Your task to perform on an android device: Go to sound settings Image 0: 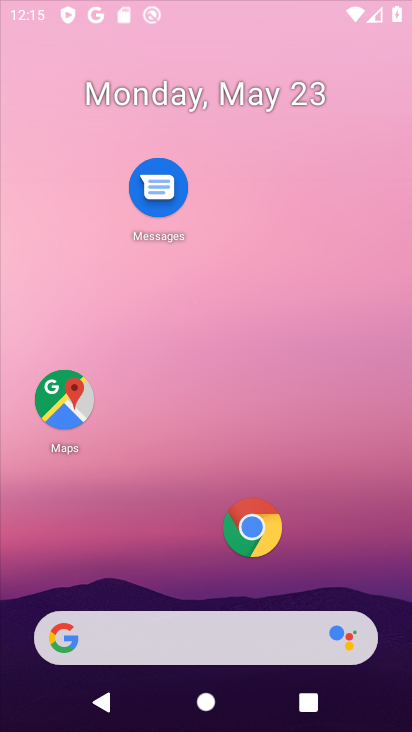
Step 0: drag from (251, 695) to (118, 34)
Your task to perform on an android device: Go to sound settings Image 1: 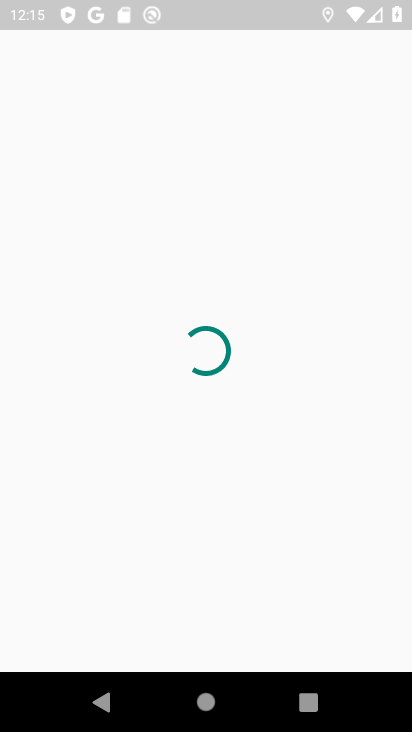
Step 1: press back button
Your task to perform on an android device: Go to sound settings Image 2: 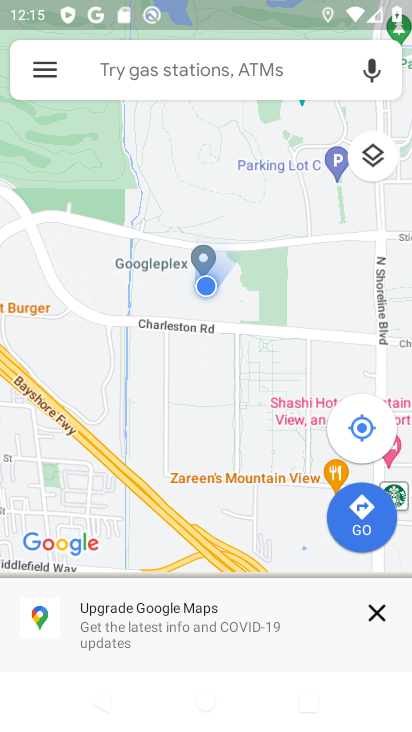
Step 2: press home button
Your task to perform on an android device: Go to sound settings Image 3: 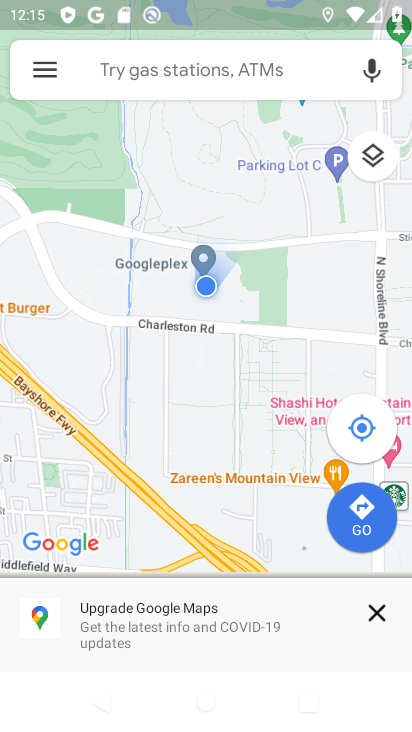
Step 3: press home button
Your task to perform on an android device: Go to sound settings Image 4: 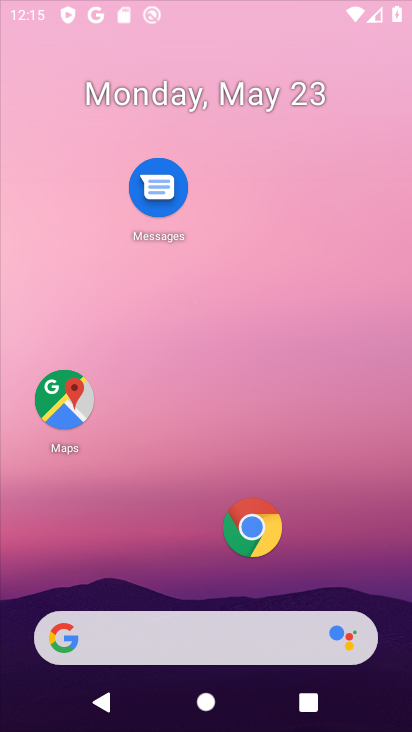
Step 4: press home button
Your task to perform on an android device: Go to sound settings Image 5: 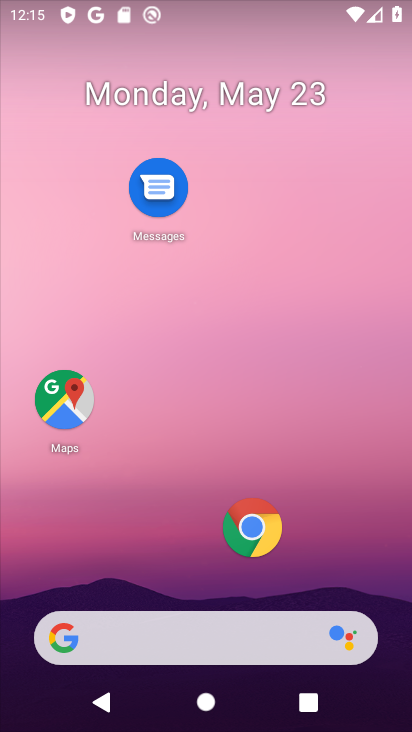
Step 5: drag from (274, 707) to (53, 0)
Your task to perform on an android device: Go to sound settings Image 6: 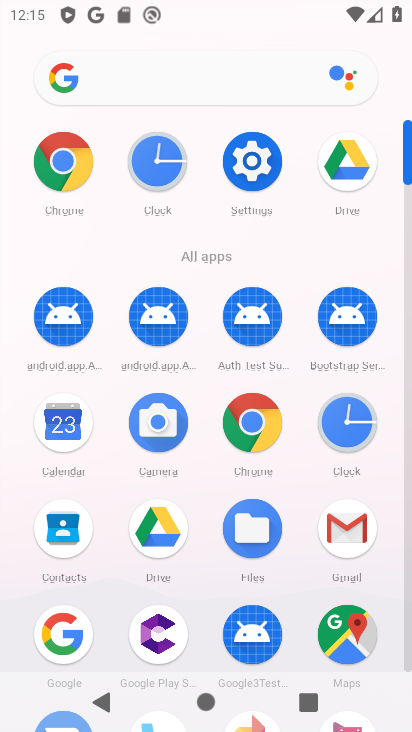
Step 6: click (247, 186)
Your task to perform on an android device: Go to sound settings Image 7: 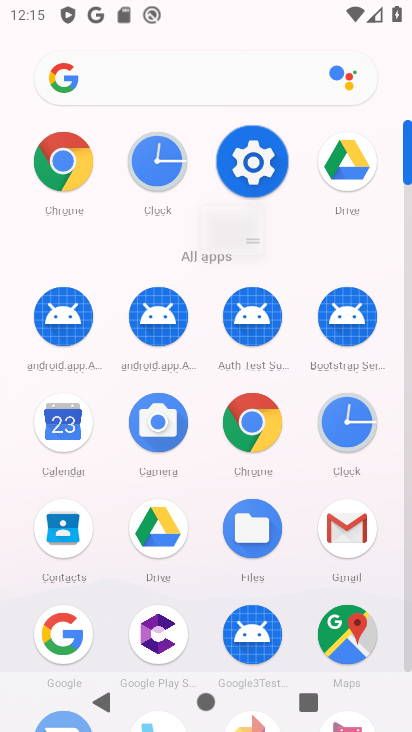
Step 7: click (247, 186)
Your task to perform on an android device: Go to sound settings Image 8: 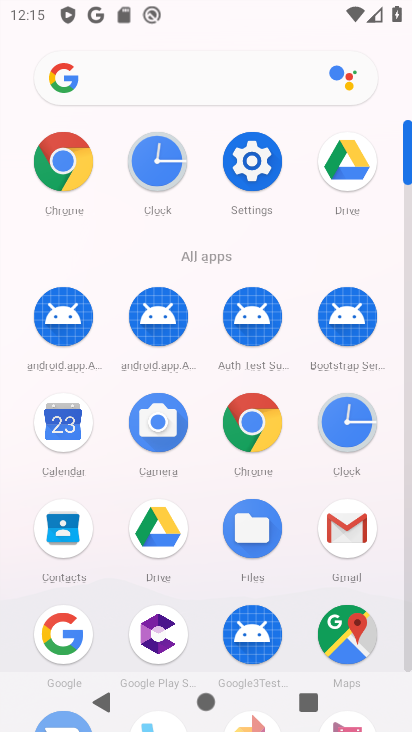
Step 8: click (247, 186)
Your task to perform on an android device: Go to sound settings Image 9: 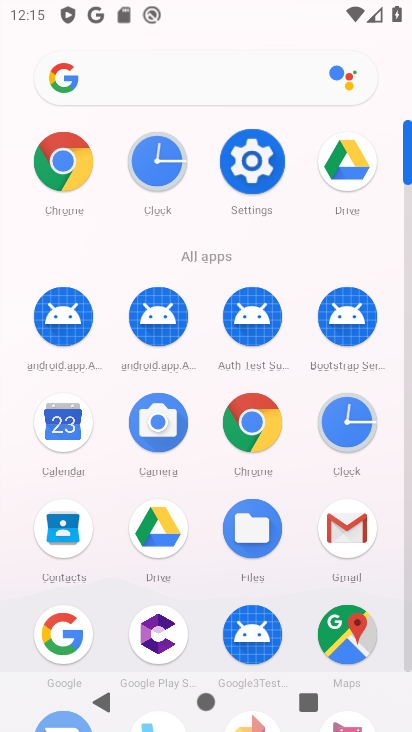
Step 9: click (247, 185)
Your task to perform on an android device: Go to sound settings Image 10: 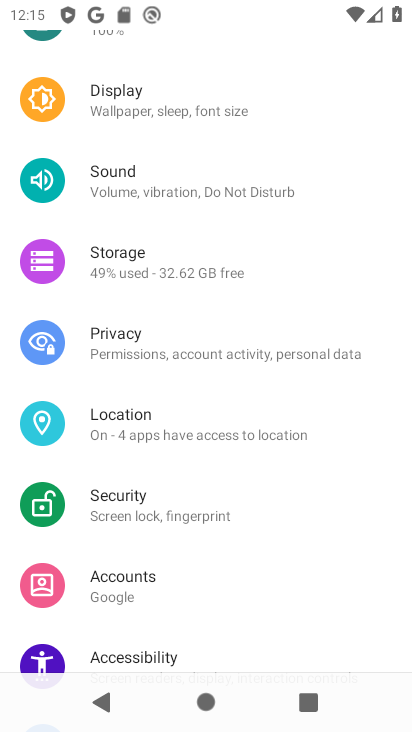
Step 10: click (248, 167)
Your task to perform on an android device: Go to sound settings Image 11: 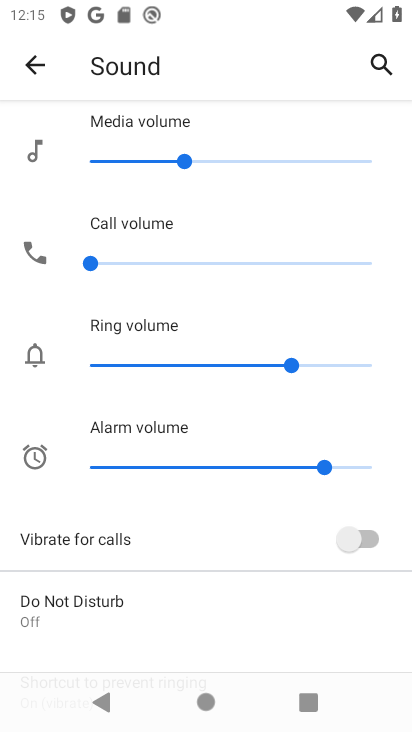
Step 11: task complete